Your task to perform on an android device: Turn off the flashlight Image 0: 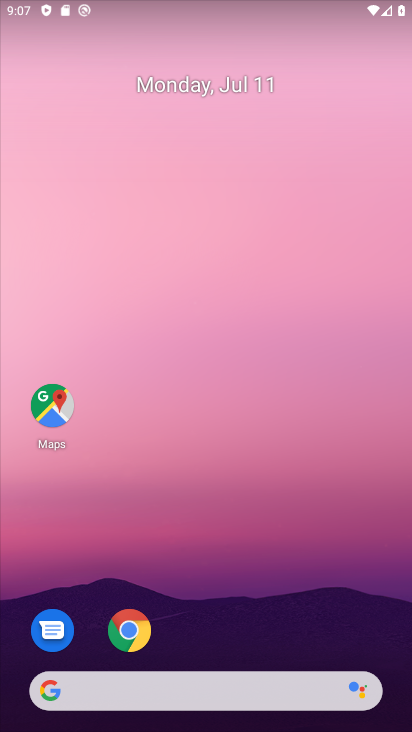
Step 0: drag from (313, 482) to (337, 117)
Your task to perform on an android device: Turn off the flashlight Image 1: 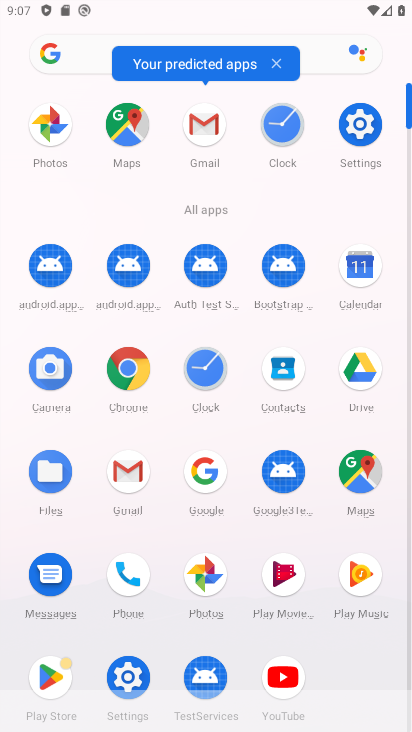
Step 1: task complete